Your task to perform on an android device: What's the weather today? Image 0: 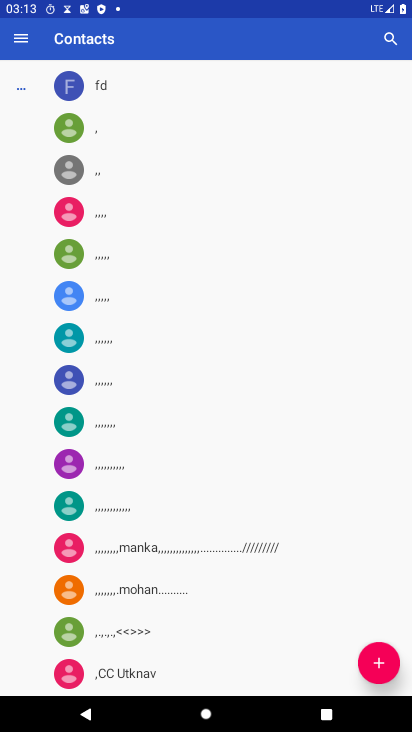
Step 0: press home button
Your task to perform on an android device: What's the weather today? Image 1: 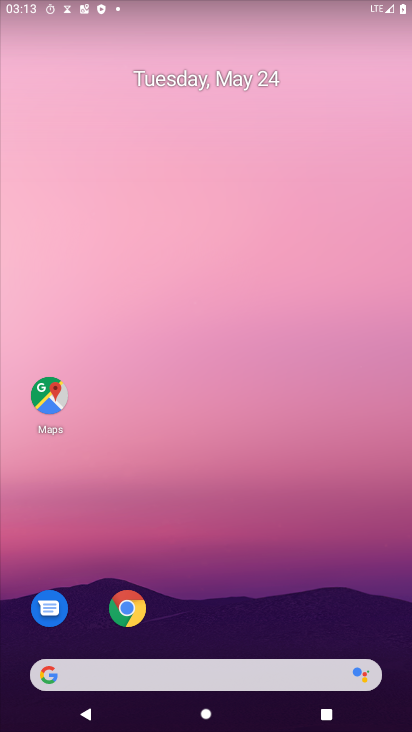
Step 1: drag from (235, 614) to (210, 171)
Your task to perform on an android device: What's the weather today? Image 2: 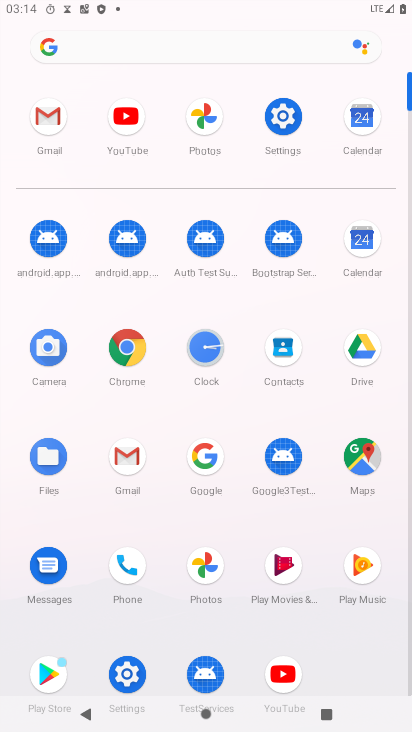
Step 2: click (138, 369)
Your task to perform on an android device: What's the weather today? Image 3: 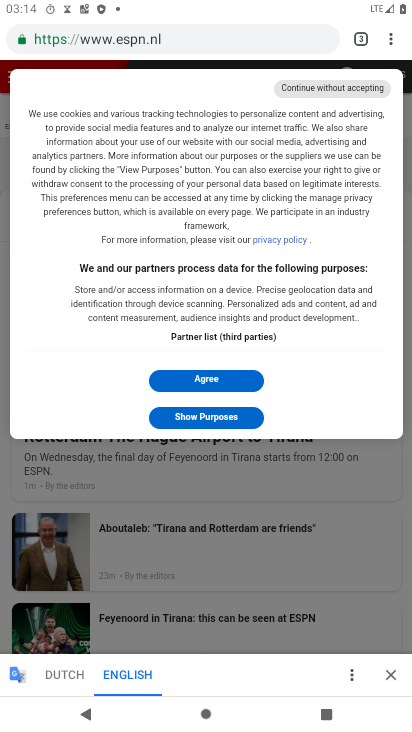
Step 3: click (243, 31)
Your task to perform on an android device: What's the weather today? Image 4: 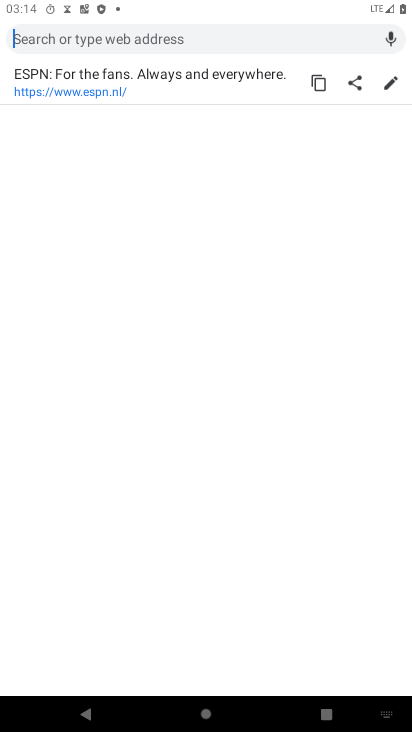
Step 4: type "What's the weather today?"
Your task to perform on an android device: What's the weather today? Image 5: 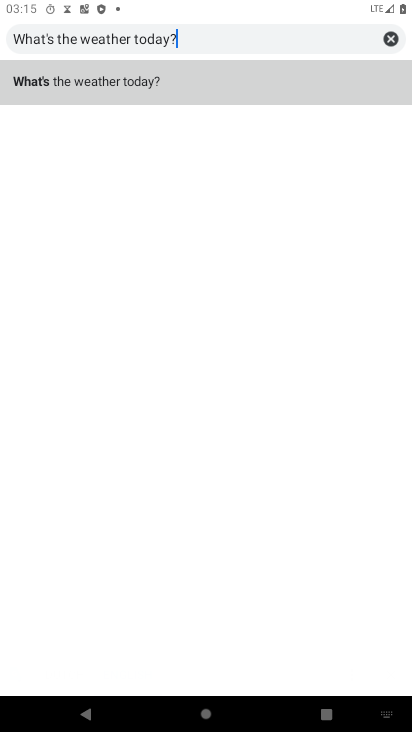
Step 5: click (83, 85)
Your task to perform on an android device: What's the weather today? Image 6: 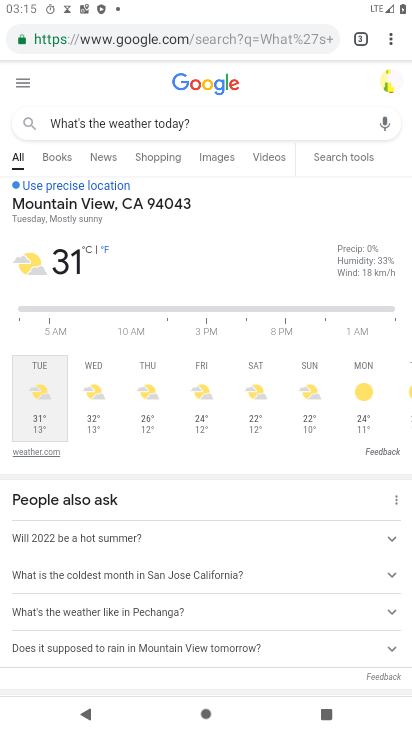
Step 6: task complete